Your task to perform on an android device: show emergency info Image 0: 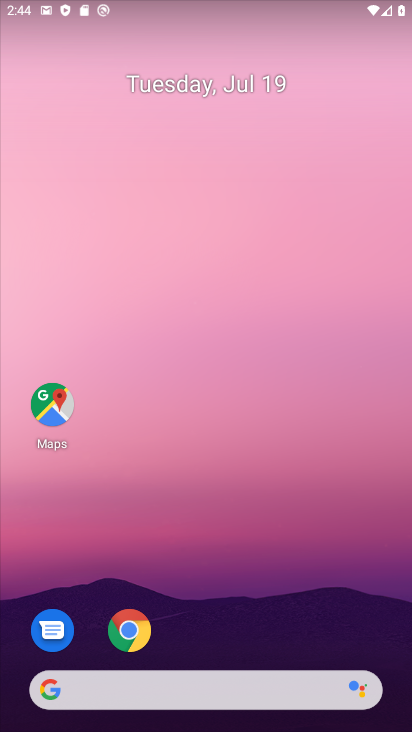
Step 0: drag from (224, 607) to (262, 81)
Your task to perform on an android device: show emergency info Image 1: 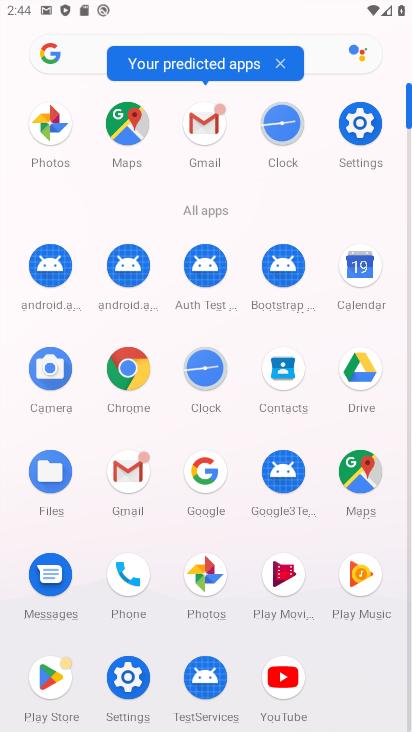
Step 1: click (361, 123)
Your task to perform on an android device: show emergency info Image 2: 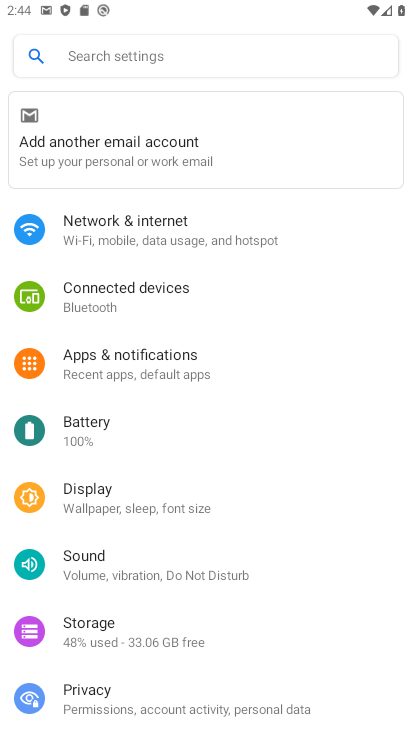
Step 2: drag from (206, 646) to (275, 46)
Your task to perform on an android device: show emergency info Image 3: 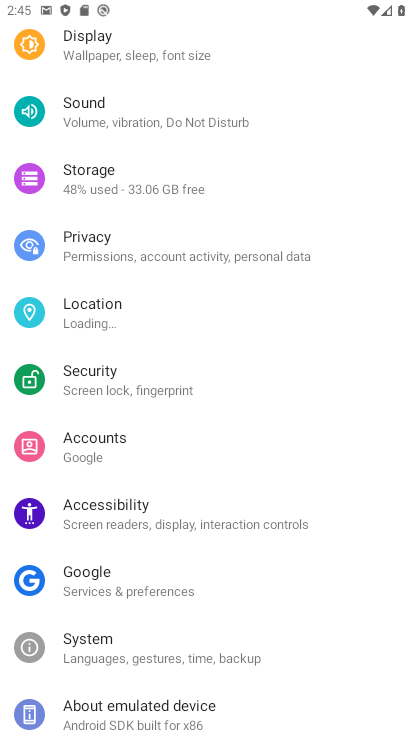
Step 3: click (182, 710)
Your task to perform on an android device: show emergency info Image 4: 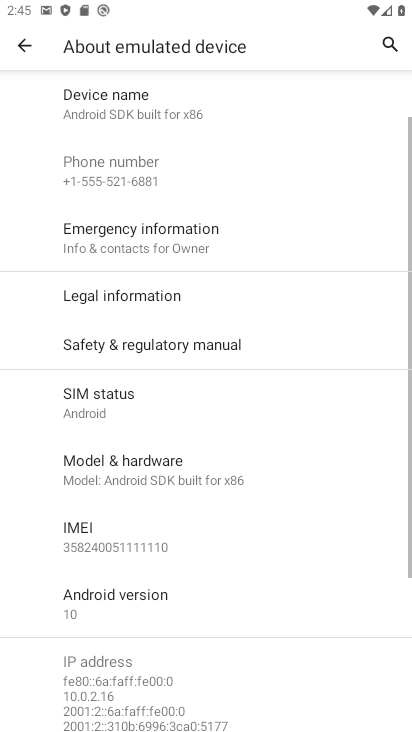
Step 4: click (134, 239)
Your task to perform on an android device: show emergency info Image 5: 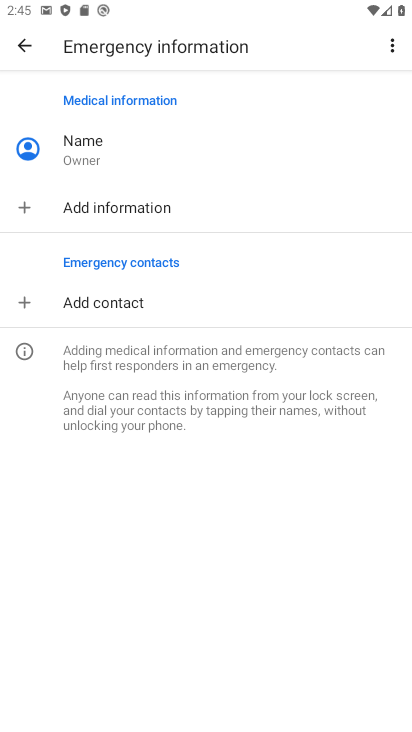
Step 5: task complete